Your task to perform on an android device: Open my contact list Image 0: 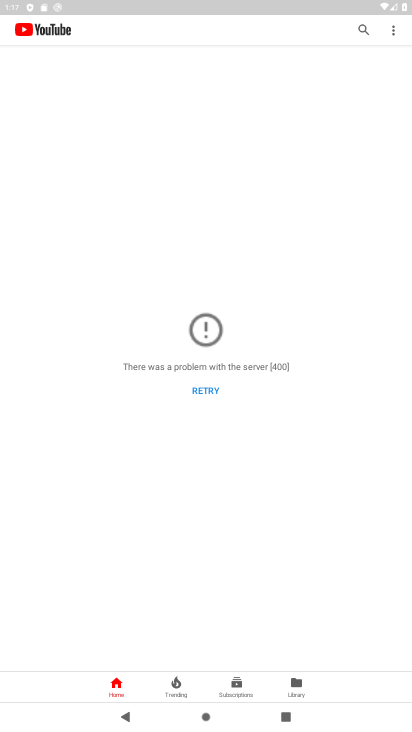
Step 0: press home button
Your task to perform on an android device: Open my contact list Image 1: 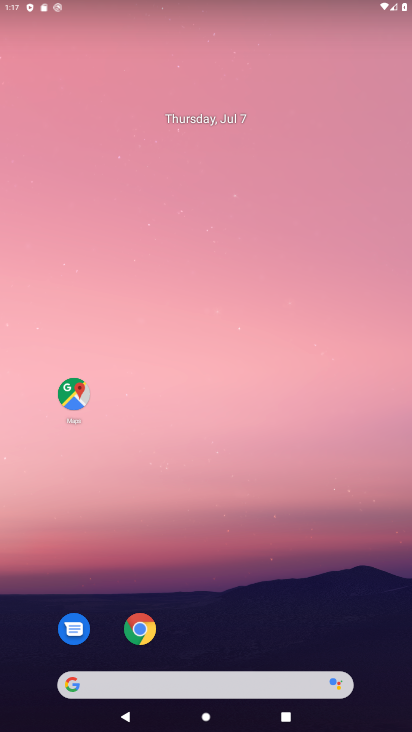
Step 1: drag from (229, 624) to (244, 109)
Your task to perform on an android device: Open my contact list Image 2: 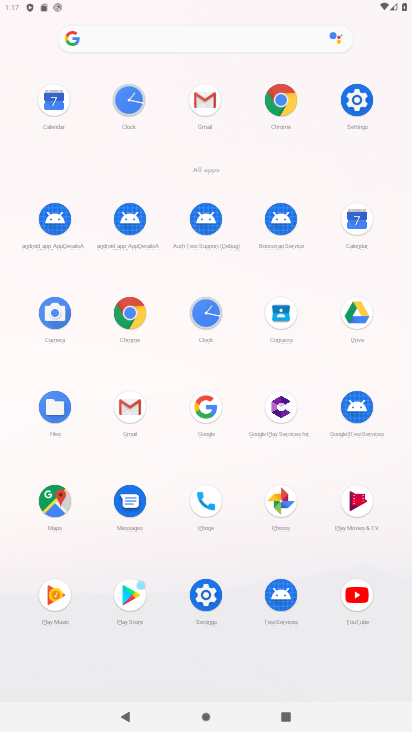
Step 2: click (284, 315)
Your task to perform on an android device: Open my contact list Image 3: 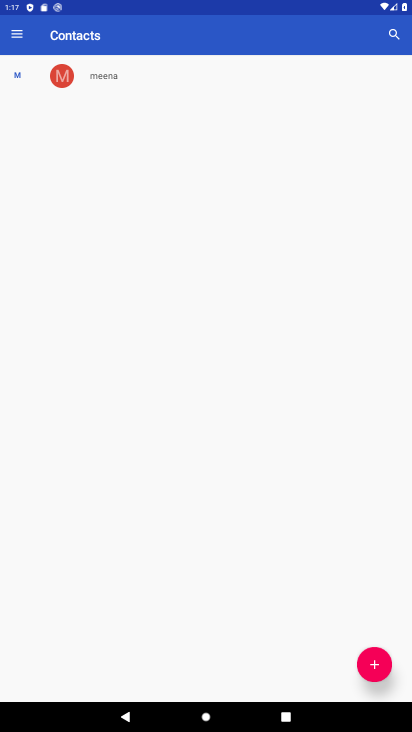
Step 3: drag from (266, 153) to (267, 277)
Your task to perform on an android device: Open my contact list Image 4: 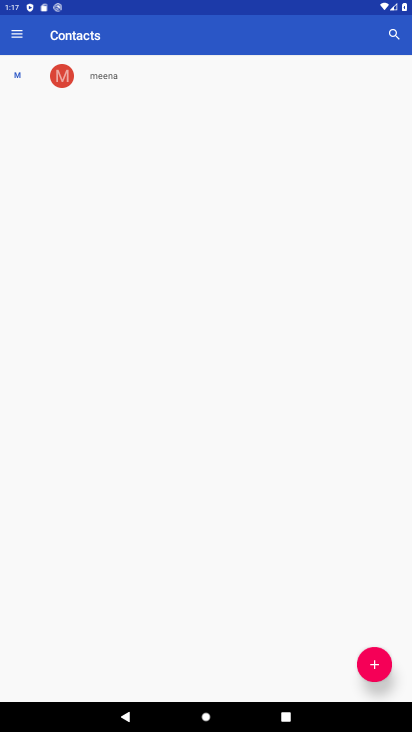
Step 4: click (125, 80)
Your task to perform on an android device: Open my contact list Image 5: 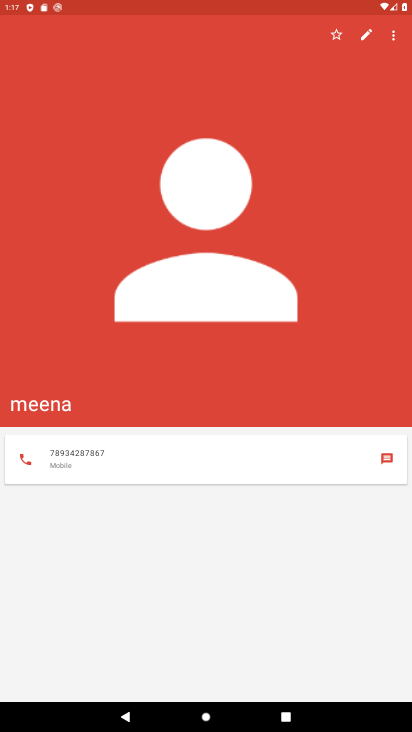
Step 5: task complete